Your task to perform on an android device: turn pop-ups on in chrome Image 0: 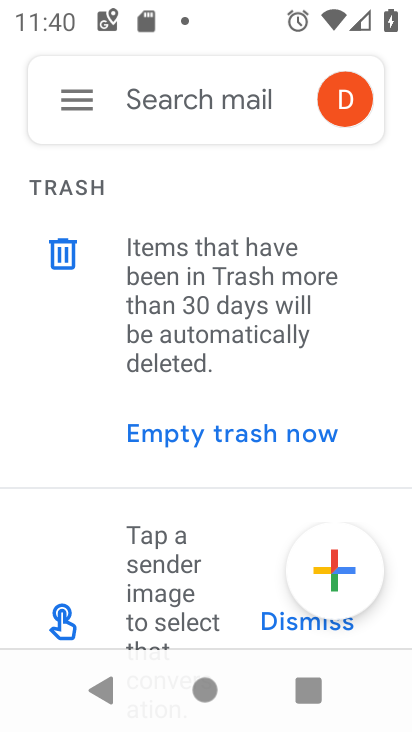
Step 0: press home button
Your task to perform on an android device: turn pop-ups on in chrome Image 1: 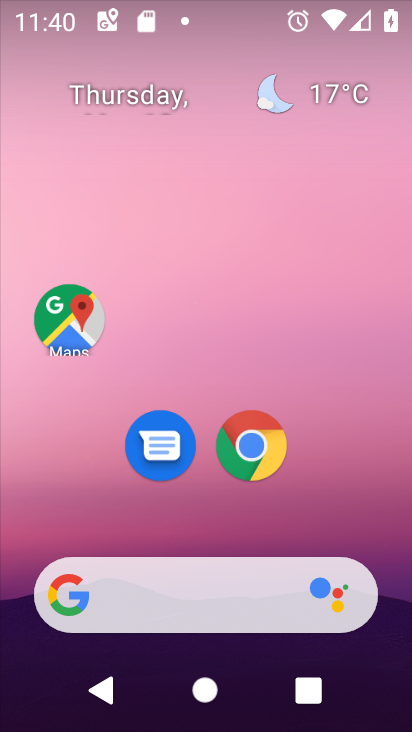
Step 1: drag from (300, 525) to (292, 268)
Your task to perform on an android device: turn pop-ups on in chrome Image 2: 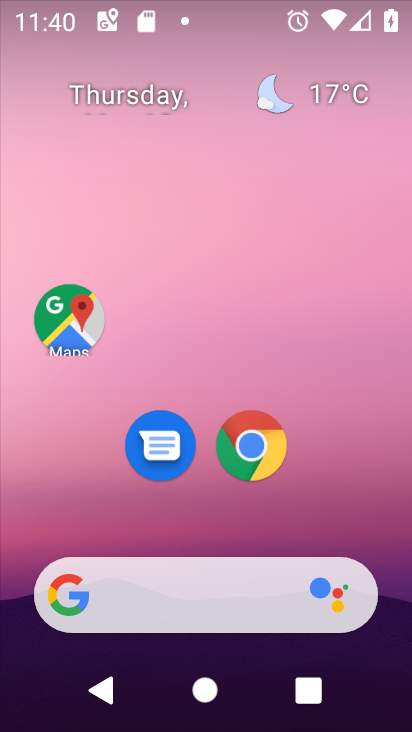
Step 2: drag from (231, 499) to (262, 192)
Your task to perform on an android device: turn pop-ups on in chrome Image 3: 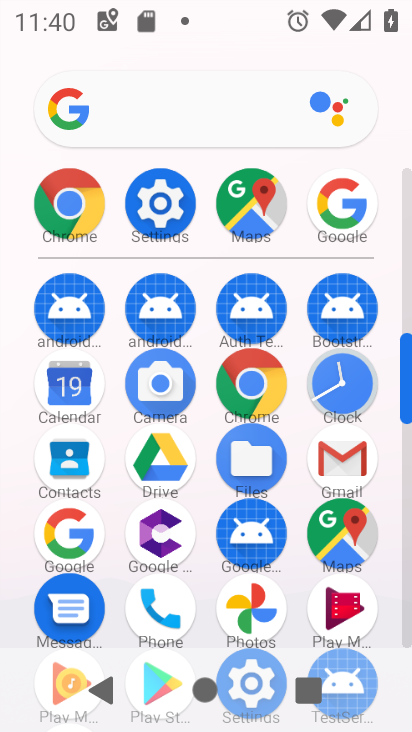
Step 3: click (179, 221)
Your task to perform on an android device: turn pop-ups on in chrome Image 4: 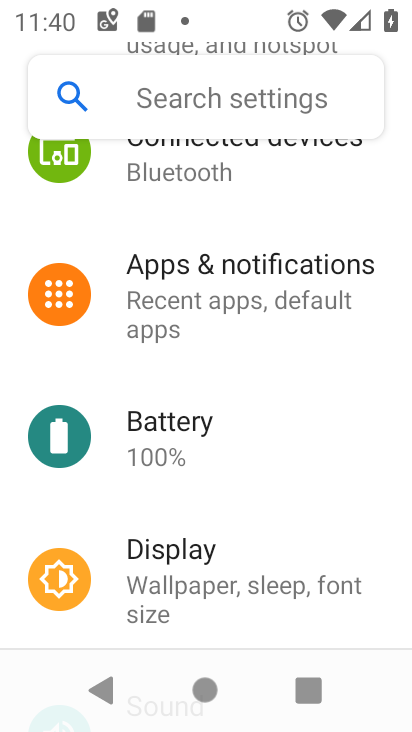
Step 4: drag from (162, 548) to (186, 249)
Your task to perform on an android device: turn pop-ups on in chrome Image 5: 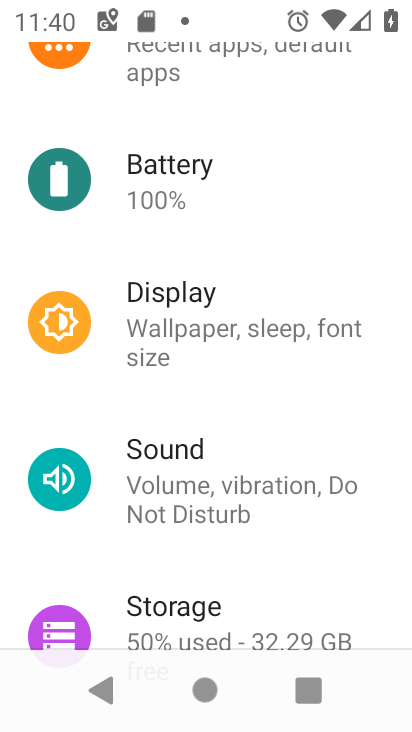
Step 5: drag from (220, 540) to (231, 223)
Your task to perform on an android device: turn pop-ups on in chrome Image 6: 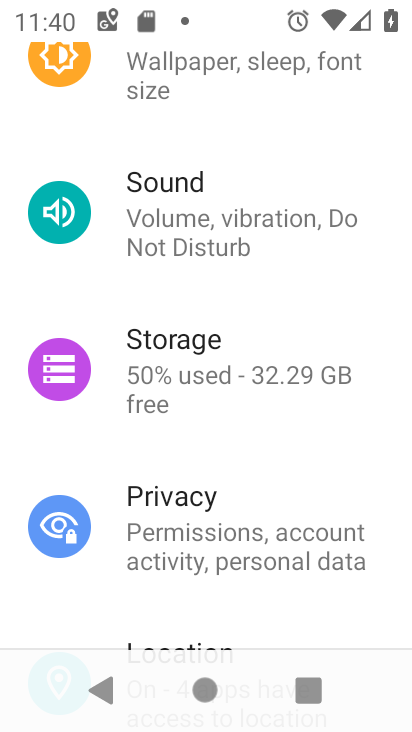
Step 6: drag from (243, 550) to (260, 205)
Your task to perform on an android device: turn pop-ups on in chrome Image 7: 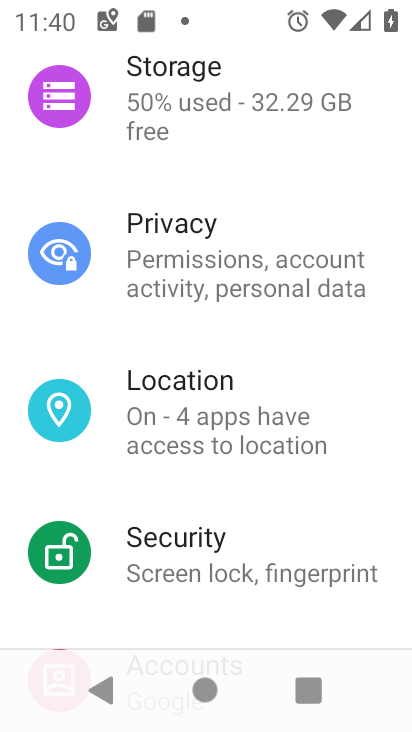
Step 7: press home button
Your task to perform on an android device: turn pop-ups on in chrome Image 8: 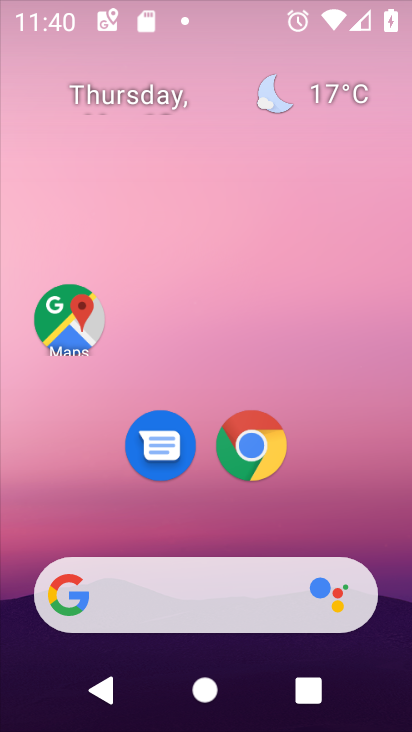
Step 8: drag from (221, 545) to (253, 175)
Your task to perform on an android device: turn pop-ups on in chrome Image 9: 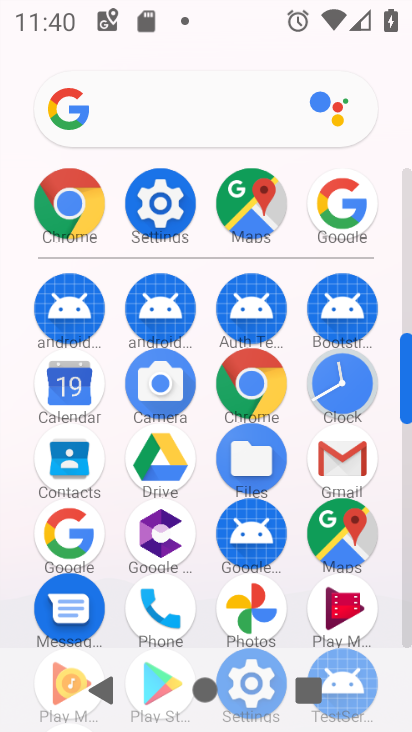
Step 9: click (257, 384)
Your task to perform on an android device: turn pop-ups on in chrome Image 10: 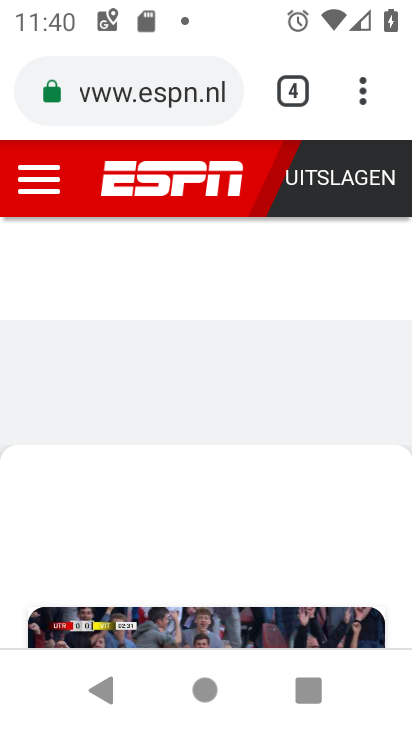
Step 10: click (358, 107)
Your task to perform on an android device: turn pop-ups on in chrome Image 11: 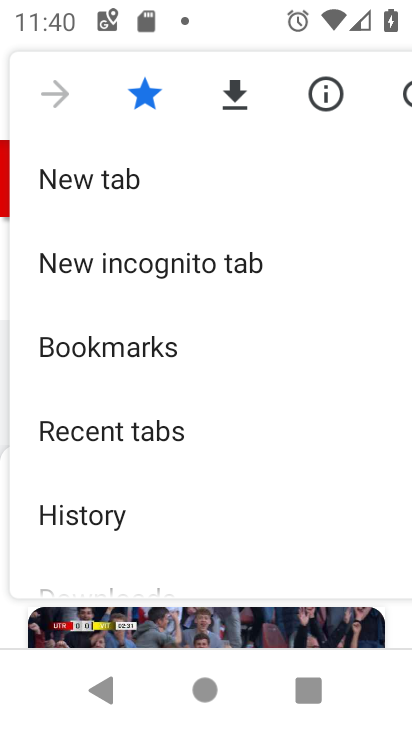
Step 11: drag from (210, 491) to (286, 108)
Your task to perform on an android device: turn pop-ups on in chrome Image 12: 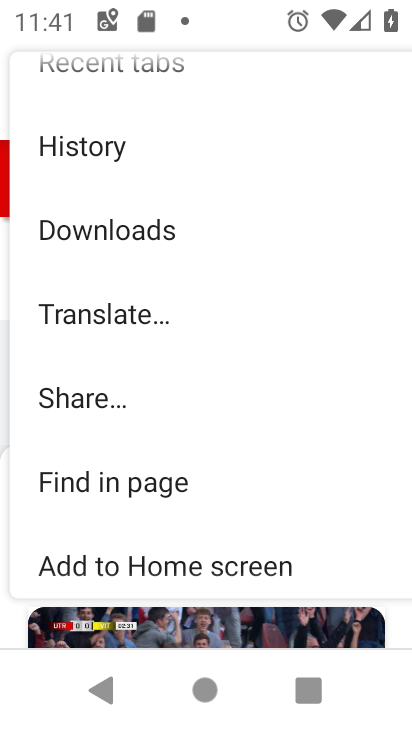
Step 12: drag from (227, 488) to (261, 152)
Your task to perform on an android device: turn pop-ups on in chrome Image 13: 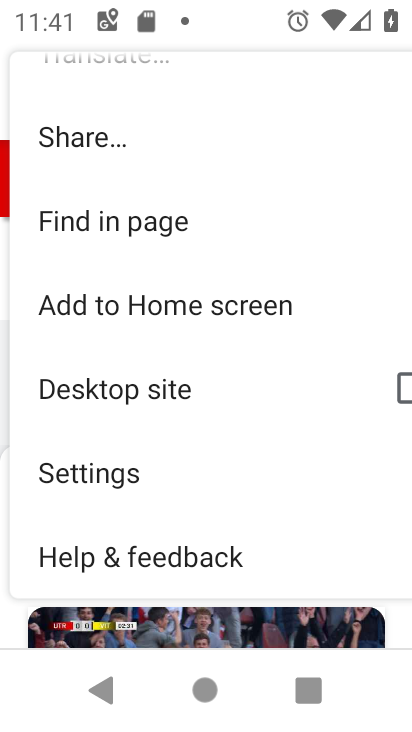
Step 13: click (208, 485)
Your task to perform on an android device: turn pop-ups on in chrome Image 14: 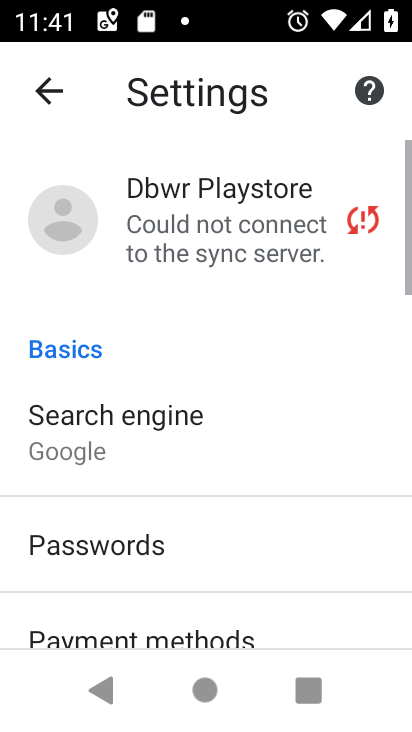
Step 14: drag from (215, 509) to (282, 144)
Your task to perform on an android device: turn pop-ups on in chrome Image 15: 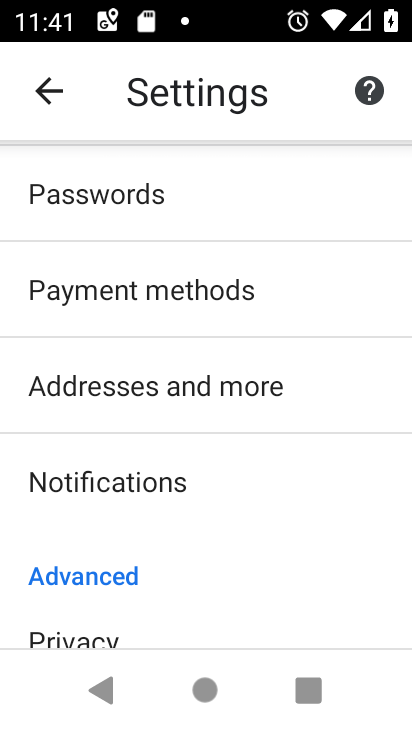
Step 15: drag from (191, 514) to (232, 165)
Your task to perform on an android device: turn pop-ups on in chrome Image 16: 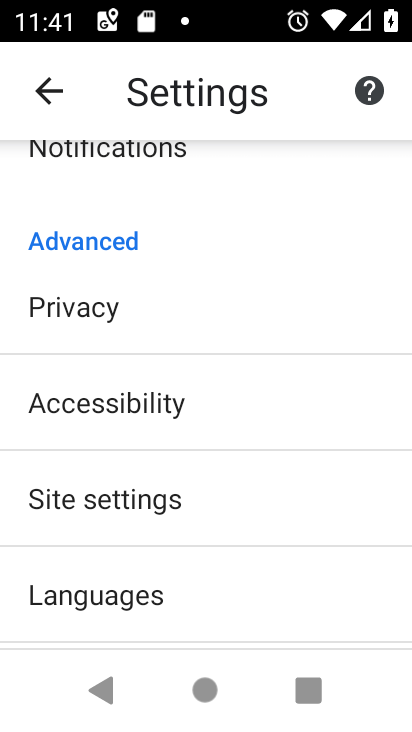
Step 16: click (210, 492)
Your task to perform on an android device: turn pop-ups on in chrome Image 17: 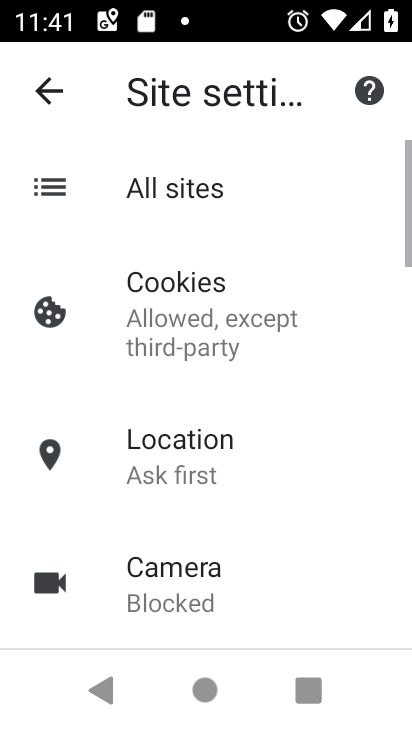
Step 17: drag from (149, 479) to (225, 200)
Your task to perform on an android device: turn pop-ups on in chrome Image 18: 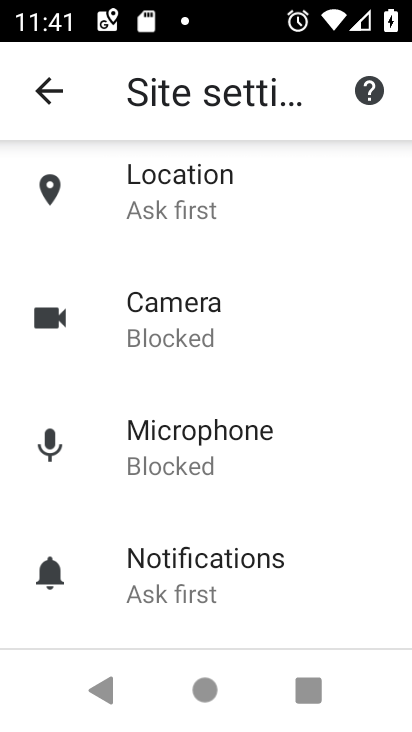
Step 18: drag from (233, 512) to (314, 32)
Your task to perform on an android device: turn pop-ups on in chrome Image 19: 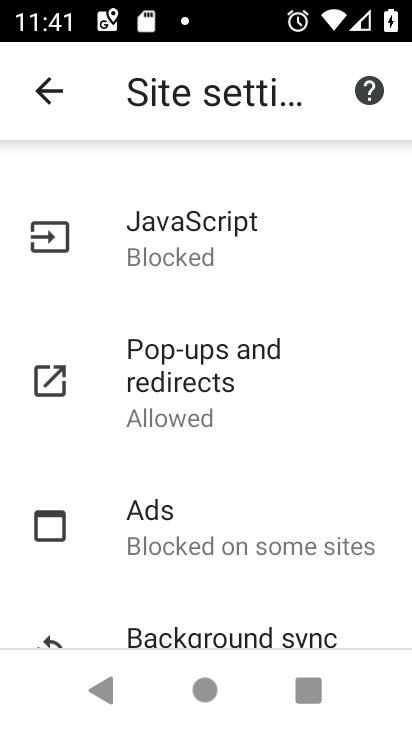
Step 19: click (243, 374)
Your task to perform on an android device: turn pop-ups on in chrome Image 20: 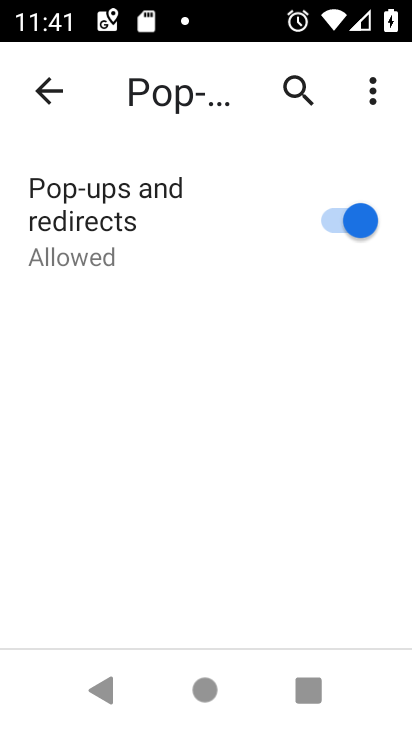
Step 20: task complete